Your task to perform on an android device: Open Google Image 0: 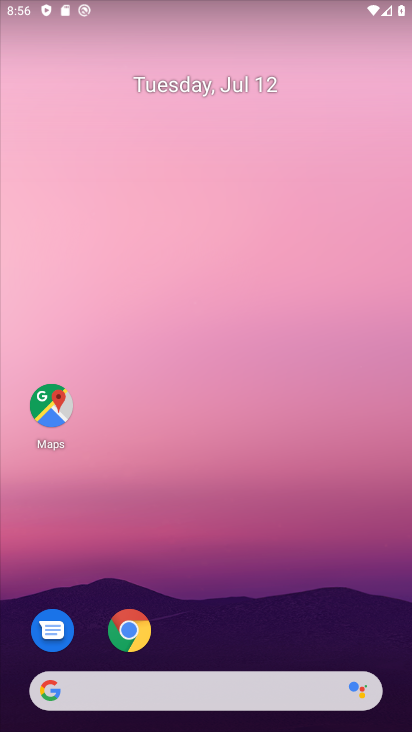
Step 0: press home button
Your task to perform on an android device: Open Google Image 1: 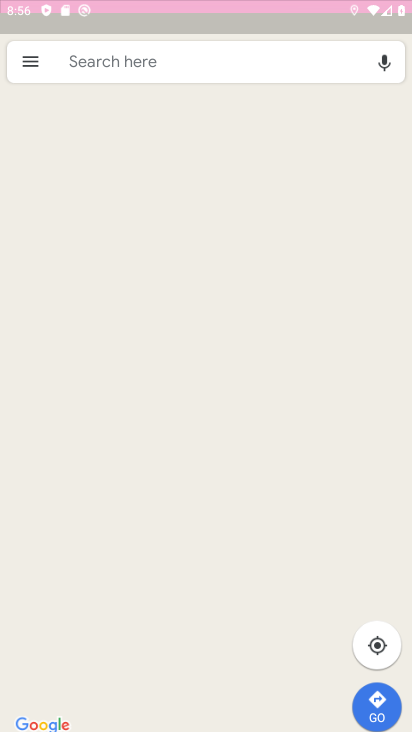
Step 1: click (211, 2)
Your task to perform on an android device: Open Google Image 2: 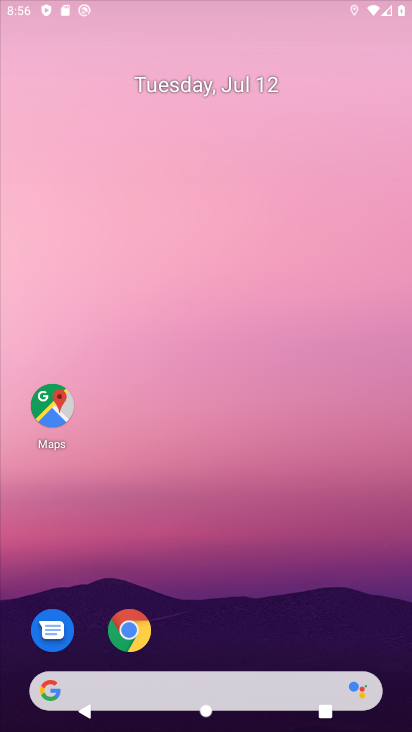
Step 2: drag from (211, 2) to (384, 7)
Your task to perform on an android device: Open Google Image 3: 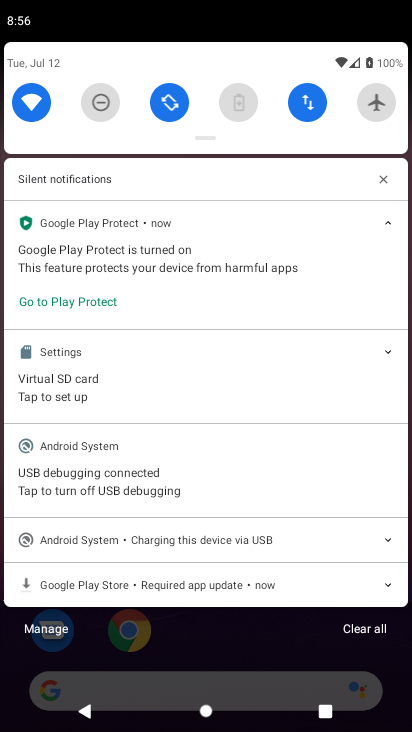
Step 3: drag from (240, 661) to (354, 10)
Your task to perform on an android device: Open Google Image 4: 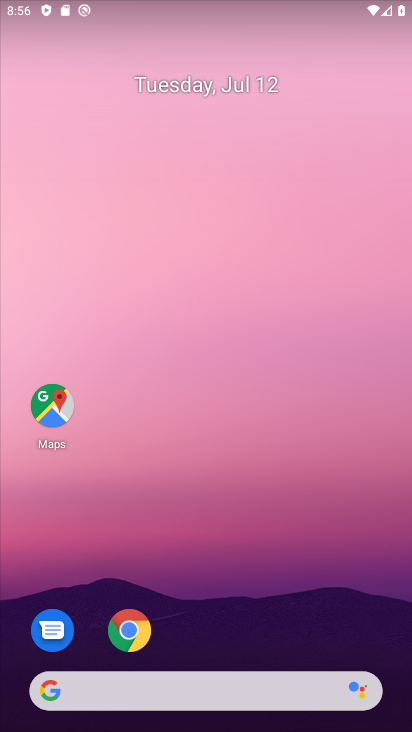
Step 4: drag from (277, 613) to (303, 145)
Your task to perform on an android device: Open Google Image 5: 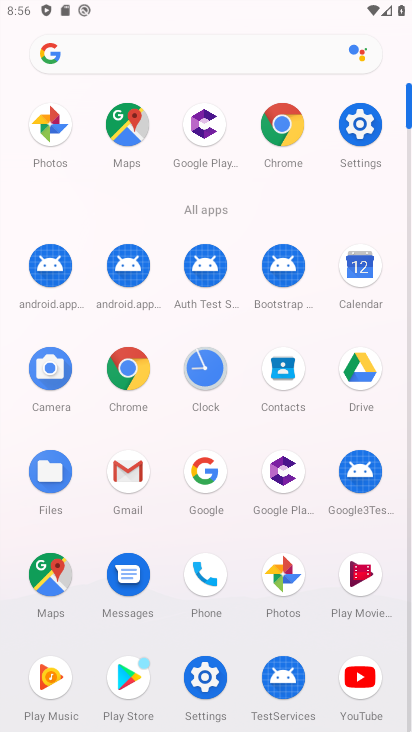
Step 5: click (204, 466)
Your task to perform on an android device: Open Google Image 6: 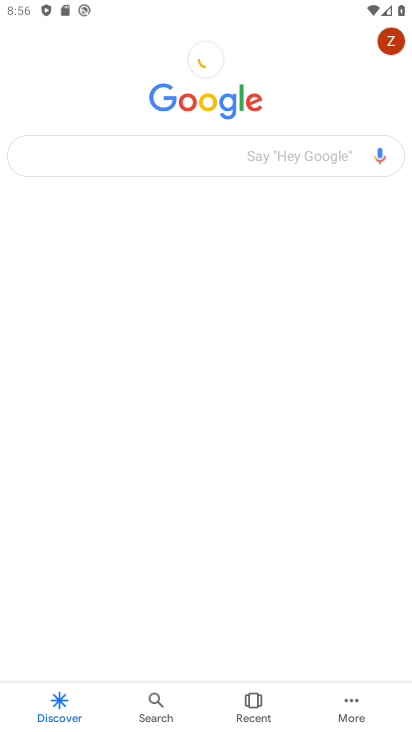
Step 6: task complete